Your task to perform on an android device: check storage Image 0: 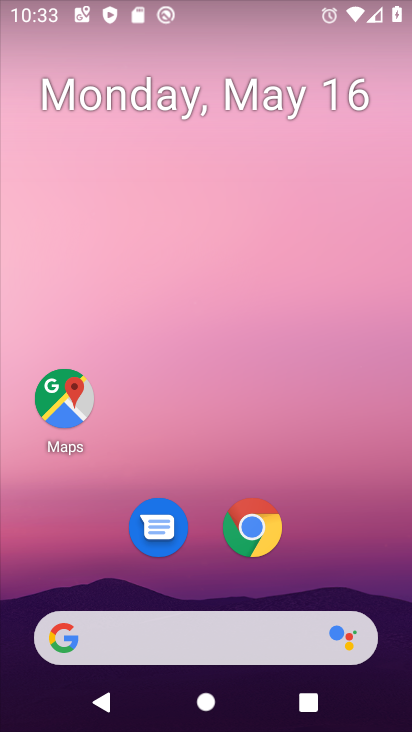
Step 0: drag from (363, 588) to (384, 0)
Your task to perform on an android device: check storage Image 1: 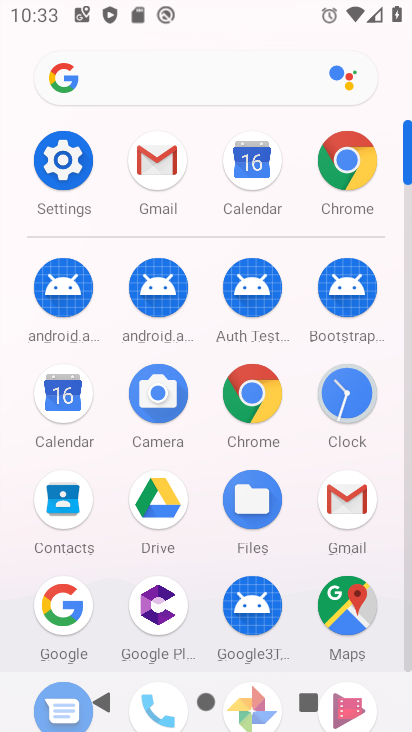
Step 1: click (49, 165)
Your task to perform on an android device: check storage Image 2: 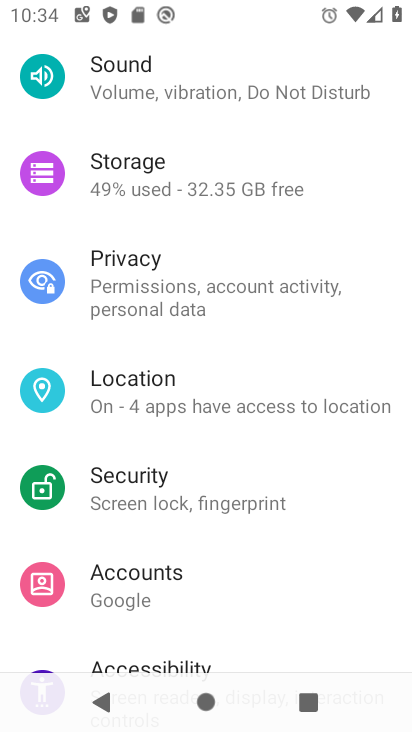
Step 2: click (140, 183)
Your task to perform on an android device: check storage Image 3: 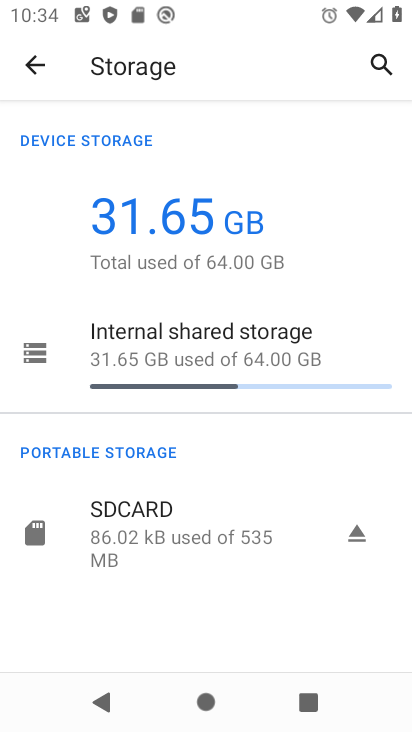
Step 3: click (146, 320)
Your task to perform on an android device: check storage Image 4: 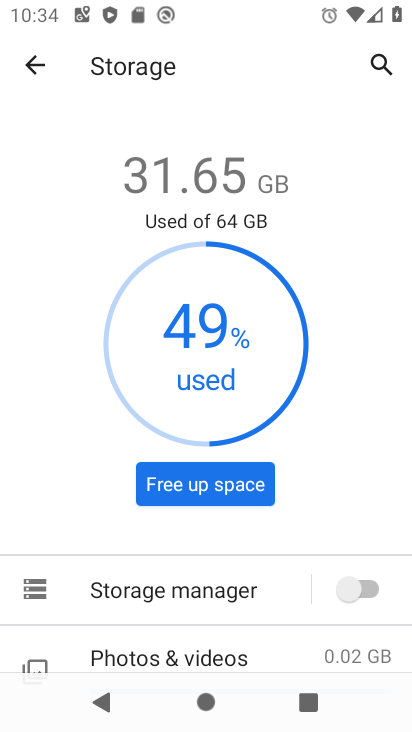
Step 4: task complete